Your task to perform on an android device: toggle priority inbox in the gmail app Image 0: 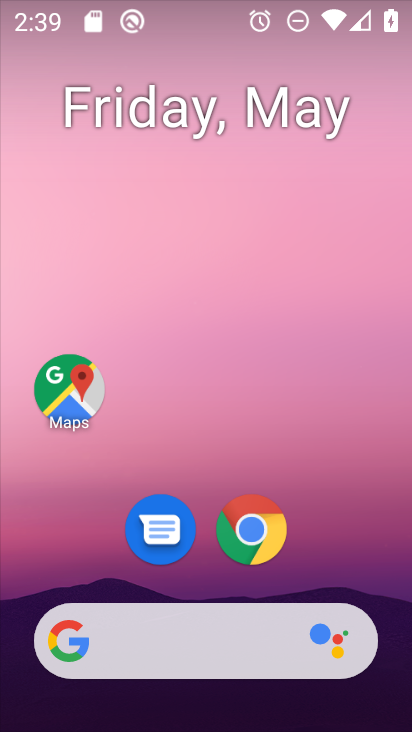
Step 0: drag from (356, 324) to (333, 200)
Your task to perform on an android device: toggle priority inbox in the gmail app Image 1: 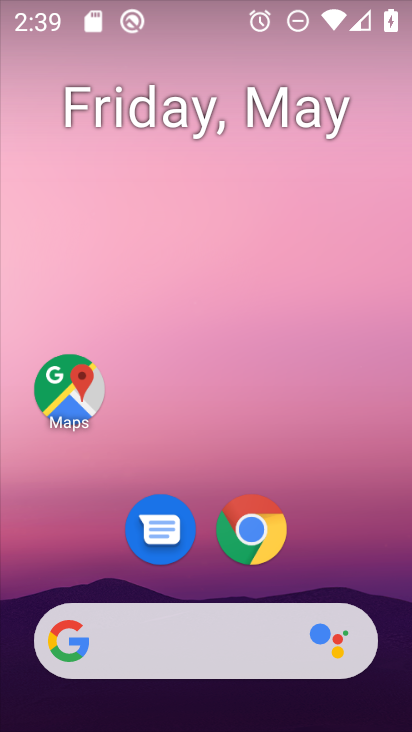
Step 1: drag from (400, 633) to (345, 164)
Your task to perform on an android device: toggle priority inbox in the gmail app Image 2: 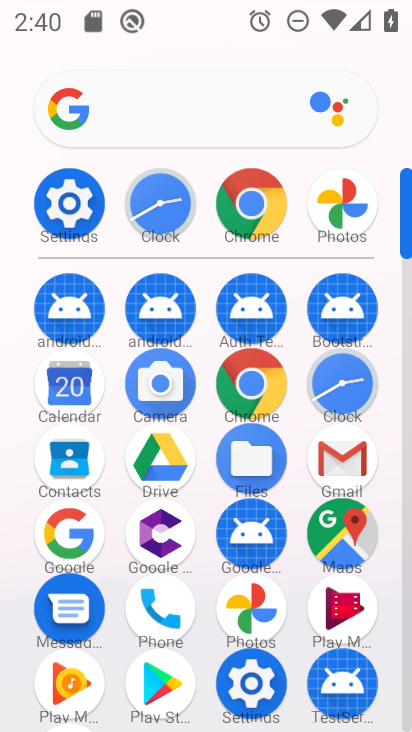
Step 2: click (315, 456)
Your task to perform on an android device: toggle priority inbox in the gmail app Image 3: 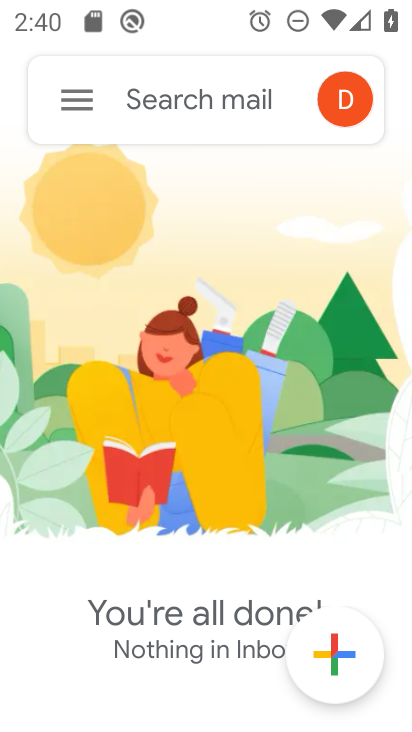
Step 3: click (79, 102)
Your task to perform on an android device: toggle priority inbox in the gmail app Image 4: 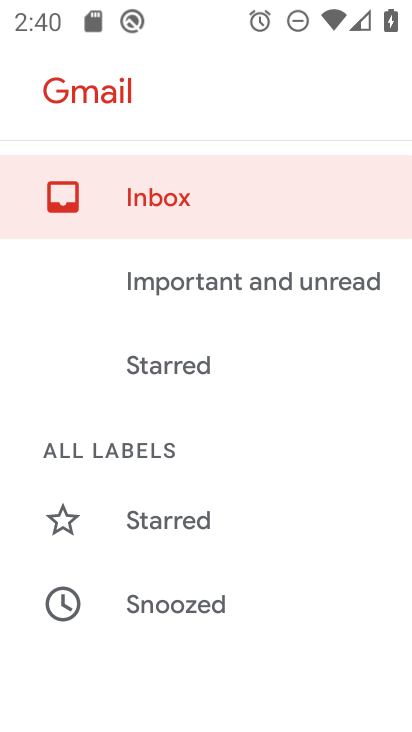
Step 4: drag from (291, 626) to (263, 329)
Your task to perform on an android device: toggle priority inbox in the gmail app Image 5: 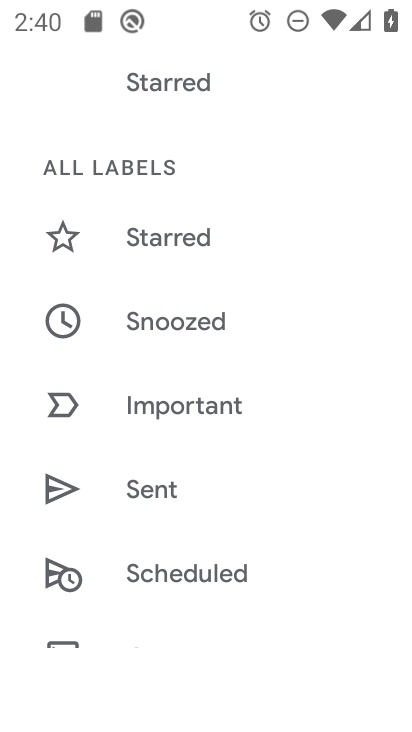
Step 5: drag from (312, 608) to (268, 388)
Your task to perform on an android device: toggle priority inbox in the gmail app Image 6: 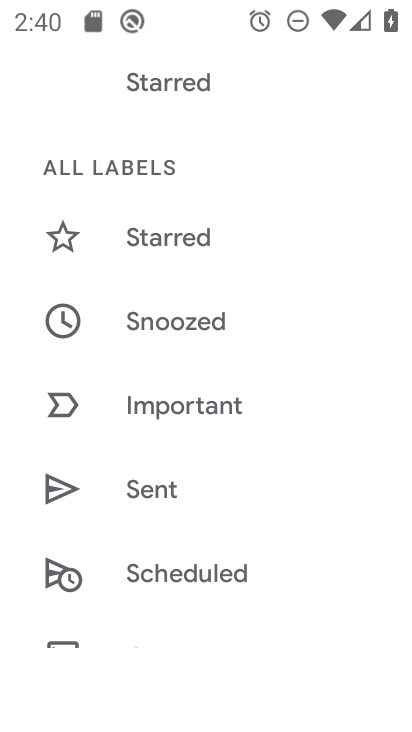
Step 6: drag from (291, 615) to (316, 266)
Your task to perform on an android device: toggle priority inbox in the gmail app Image 7: 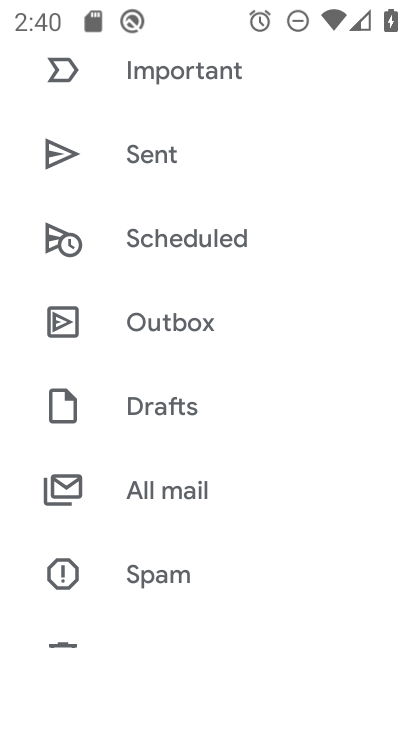
Step 7: drag from (283, 607) to (299, 377)
Your task to perform on an android device: toggle priority inbox in the gmail app Image 8: 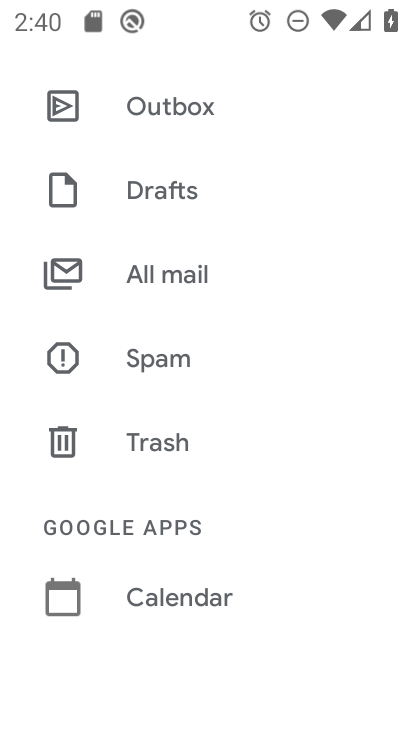
Step 8: drag from (270, 608) to (268, 357)
Your task to perform on an android device: toggle priority inbox in the gmail app Image 9: 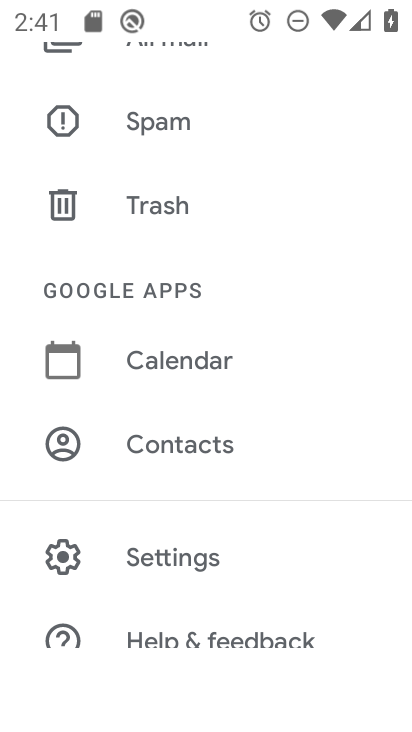
Step 9: click (174, 549)
Your task to perform on an android device: toggle priority inbox in the gmail app Image 10: 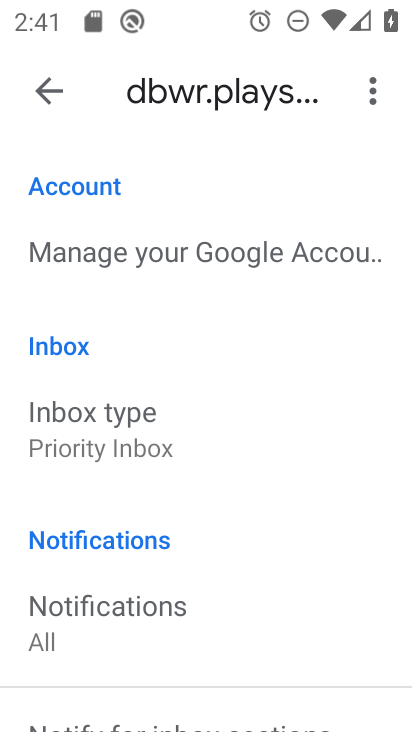
Step 10: click (81, 442)
Your task to perform on an android device: toggle priority inbox in the gmail app Image 11: 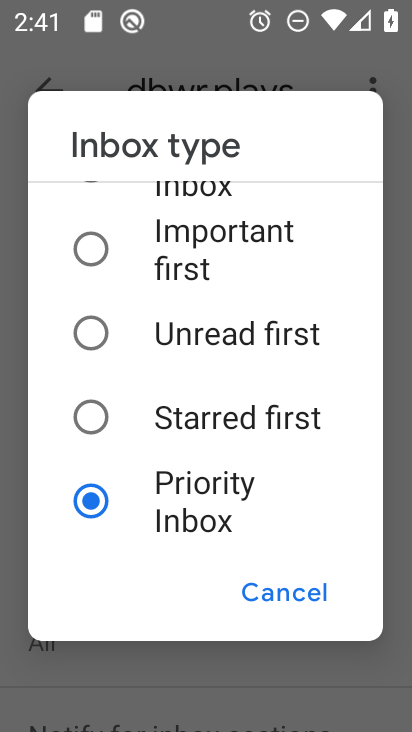
Step 11: drag from (178, 247) to (215, 624)
Your task to perform on an android device: toggle priority inbox in the gmail app Image 12: 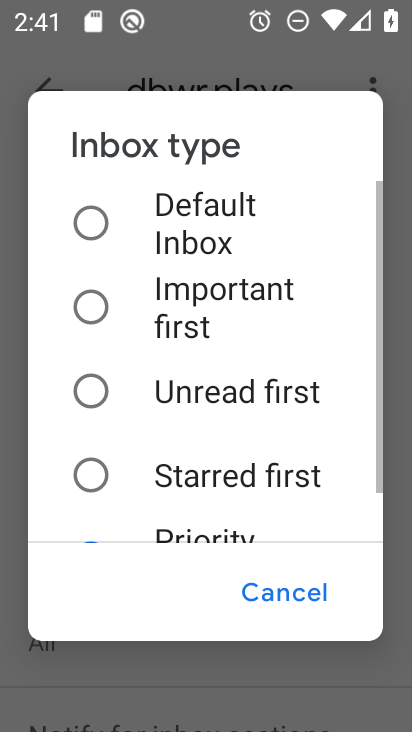
Step 12: click (88, 223)
Your task to perform on an android device: toggle priority inbox in the gmail app Image 13: 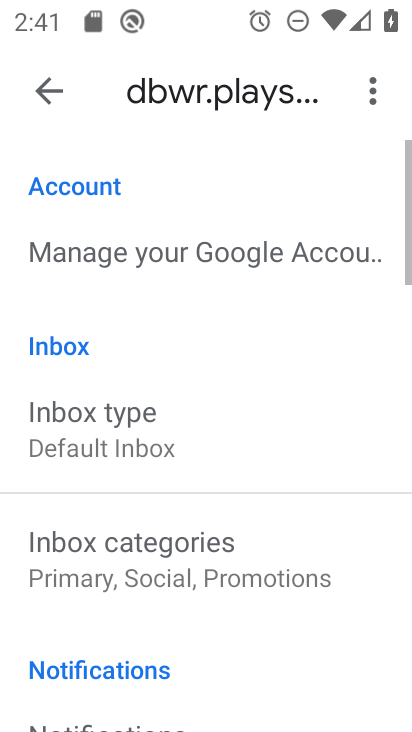
Step 13: task complete